Your task to perform on an android device: Open battery settings Image 0: 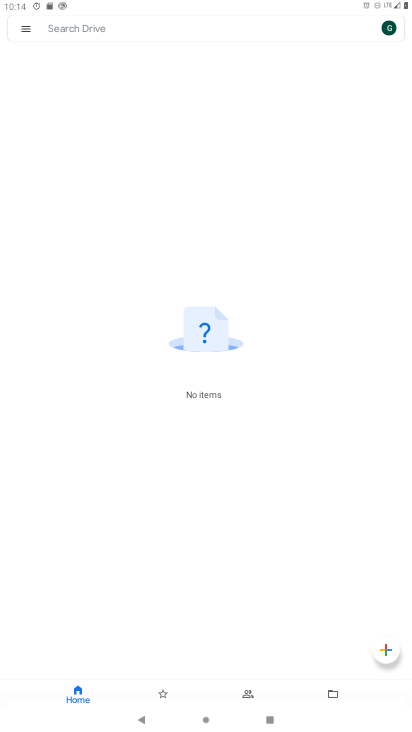
Step 0: press home button
Your task to perform on an android device: Open battery settings Image 1: 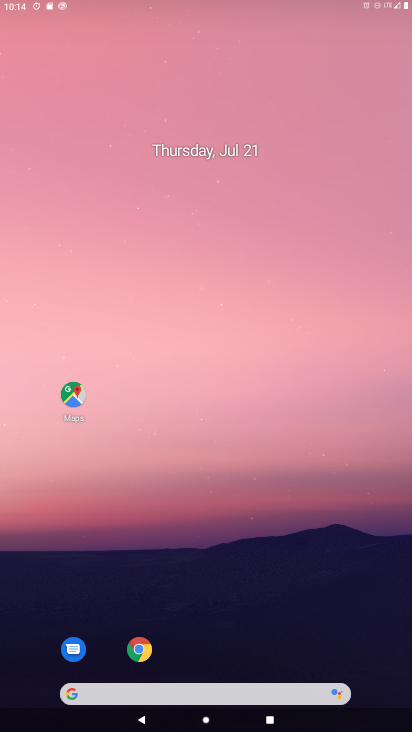
Step 1: drag from (346, 649) to (225, 5)
Your task to perform on an android device: Open battery settings Image 2: 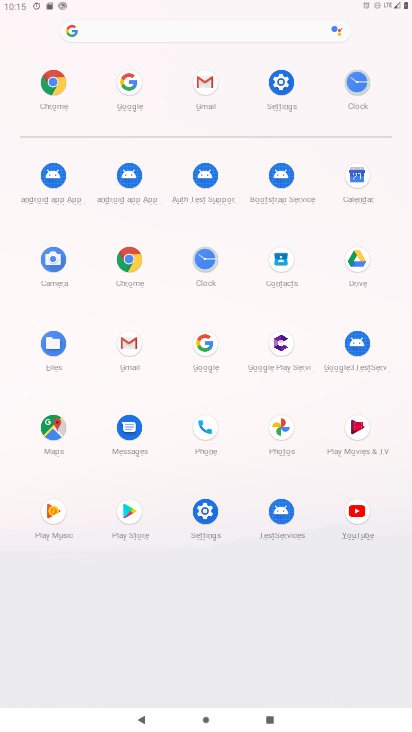
Step 2: click (201, 510)
Your task to perform on an android device: Open battery settings Image 3: 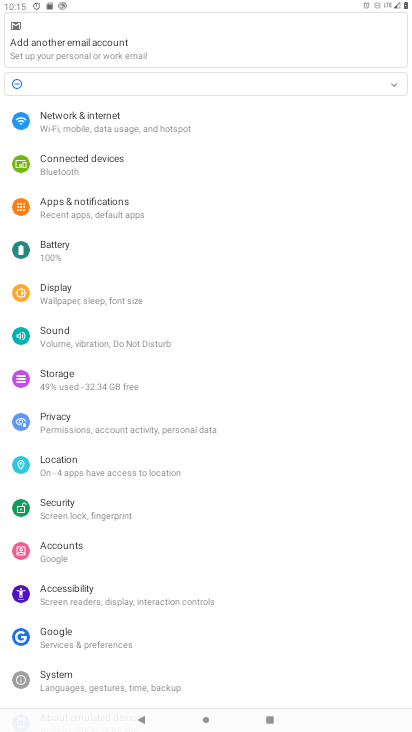
Step 3: click (58, 246)
Your task to perform on an android device: Open battery settings Image 4: 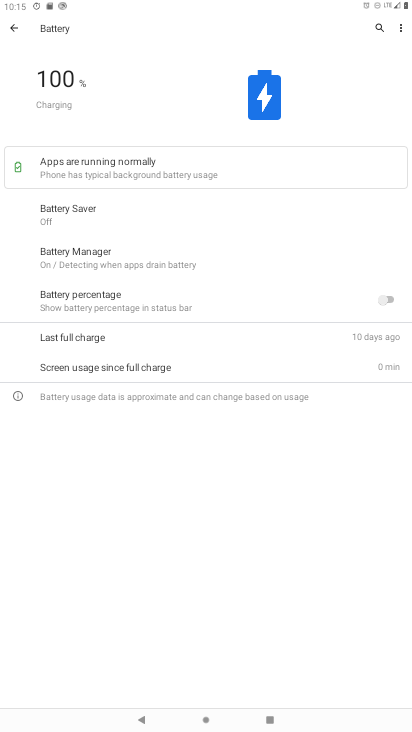
Step 4: task complete